Your task to perform on an android device: toggle notification dots Image 0: 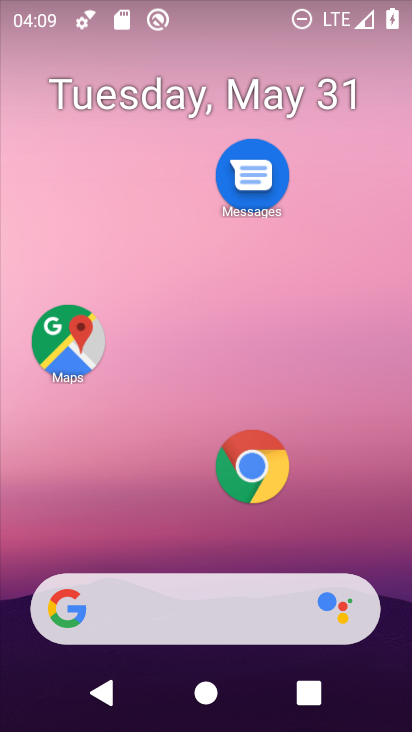
Step 0: drag from (122, 537) to (156, 170)
Your task to perform on an android device: toggle notification dots Image 1: 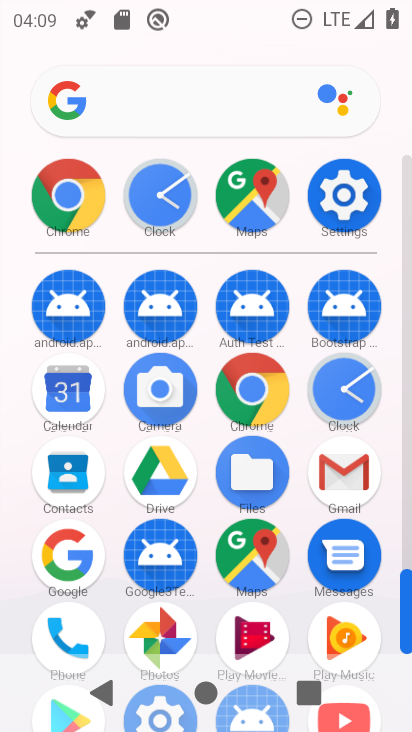
Step 1: click (343, 192)
Your task to perform on an android device: toggle notification dots Image 2: 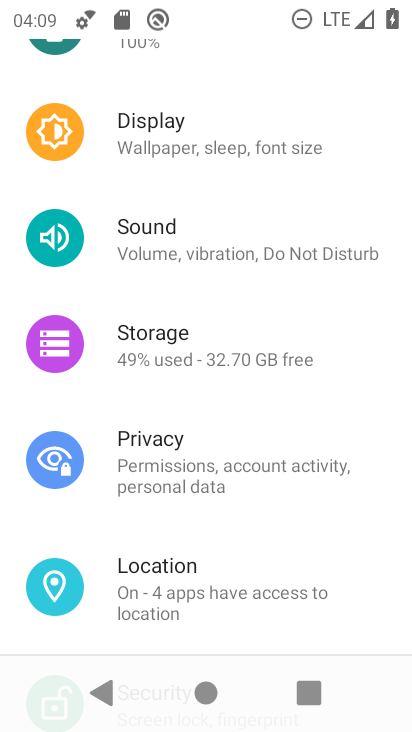
Step 2: drag from (273, 167) to (232, 659)
Your task to perform on an android device: toggle notification dots Image 3: 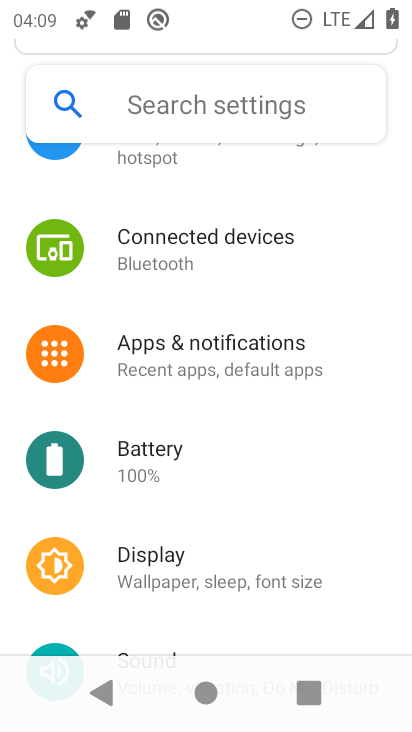
Step 3: click (230, 355)
Your task to perform on an android device: toggle notification dots Image 4: 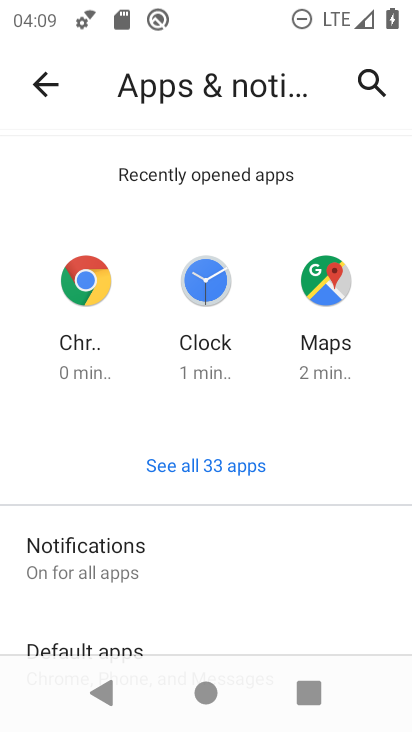
Step 4: click (138, 561)
Your task to perform on an android device: toggle notification dots Image 5: 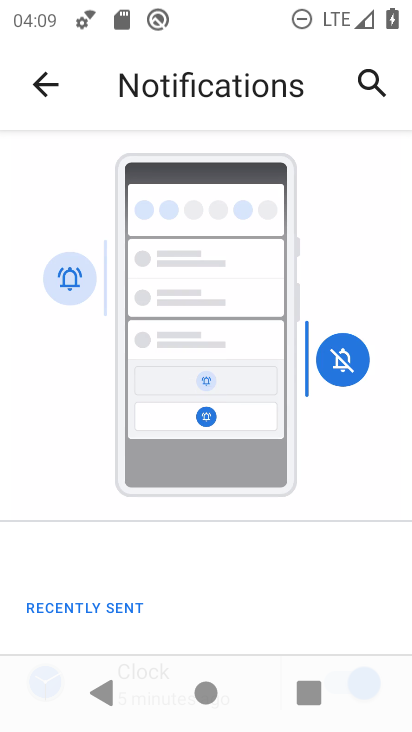
Step 5: drag from (159, 599) to (227, 159)
Your task to perform on an android device: toggle notification dots Image 6: 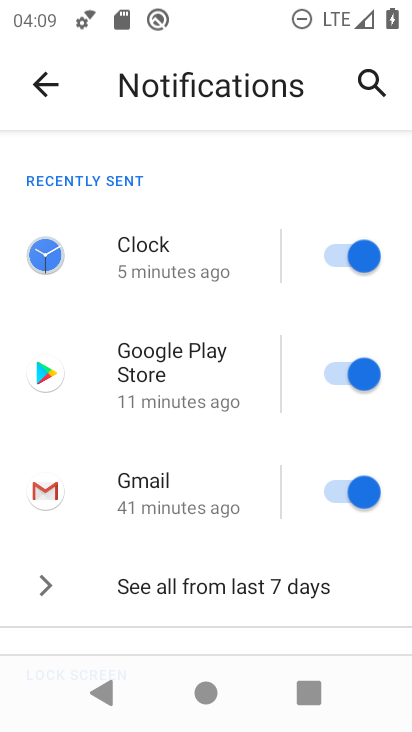
Step 6: drag from (208, 582) to (278, 246)
Your task to perform on an android device: toggle notification dots Image 7: 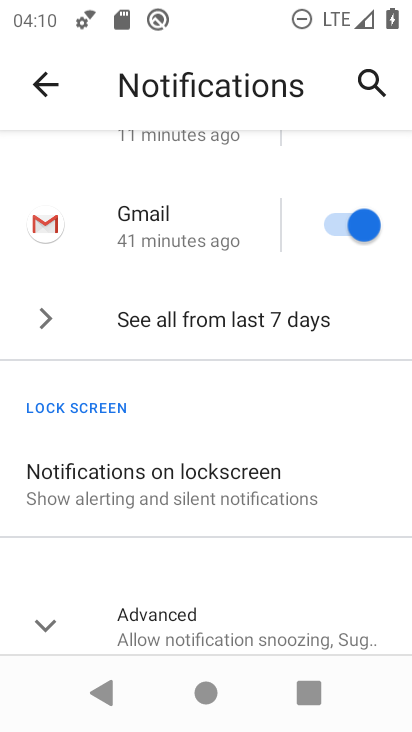
Step 7: drag from (215, 569) to (256, 88)
Your task to perform on an android device: toggle notification dots Image 8: 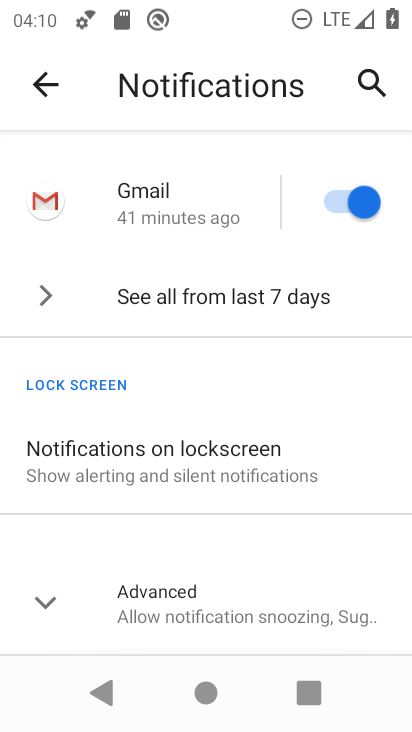
Step 8: click (163, 620)
Your task to perform on an android device: toggle notification dots Image 9: 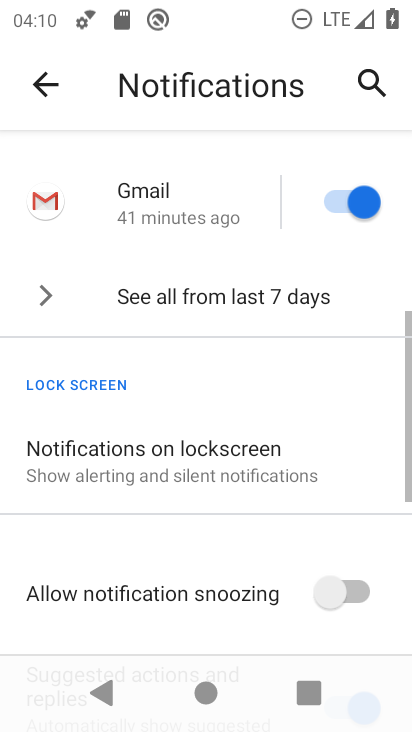
Step 9: drag from (165, 591) to (224, 195)
Your task to perform on an android device: toggle notification dots Image 10: 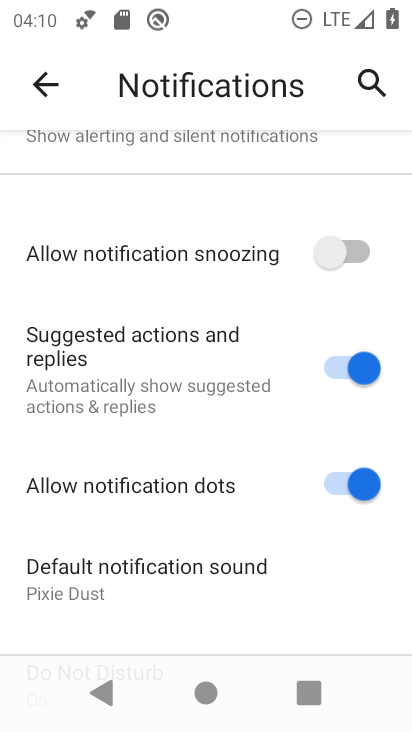
Step 10: click (364, 485)
Your task to perform on an android device: toggle notification dots Image 11: 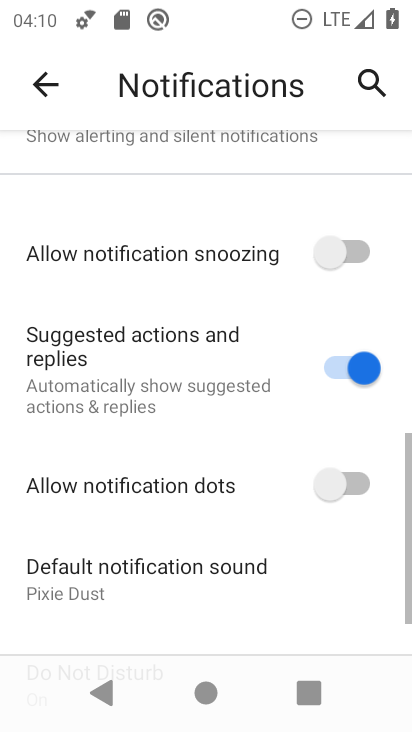
Step 11: task complete